Your task to perform on an android device: change the clock style Image 0: 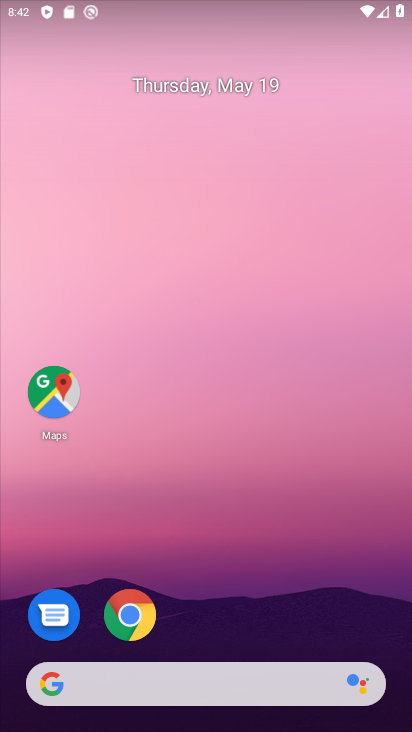
Step 0: drag from (297, 628) to (349, 3)
Your task to perform on an android device: change the clock style Image 1: 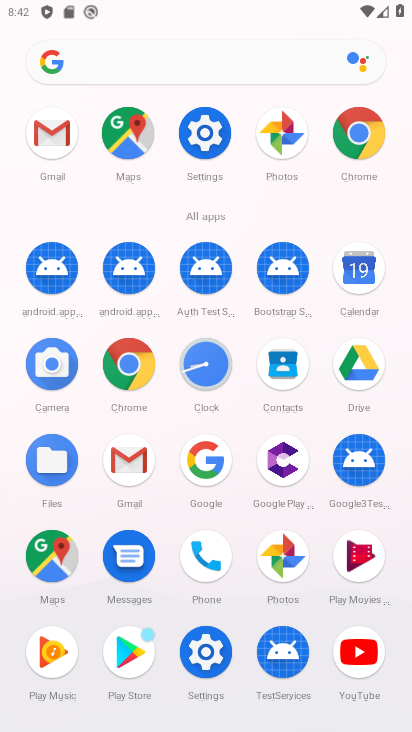
Step 1: click (210, 367)
Your task to perform on an android device: change the clock style Image 2: 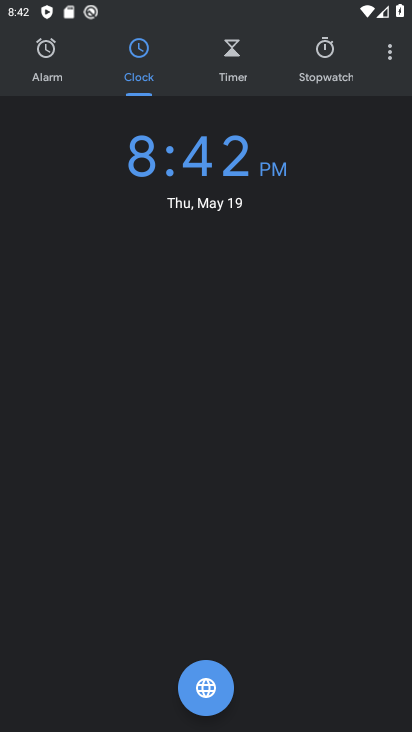
Step 2: click (381, 61)
Your task to perform on an android device: change the clock style Image 3: 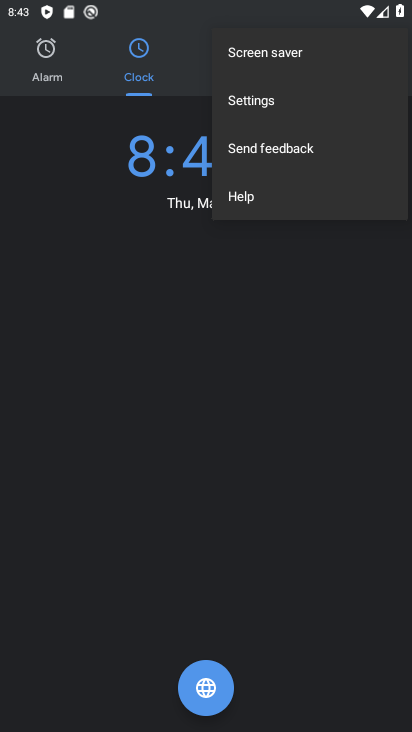
Step 3: click (257, 107)
Your task to perform on an android device: change the clock style Image 4: 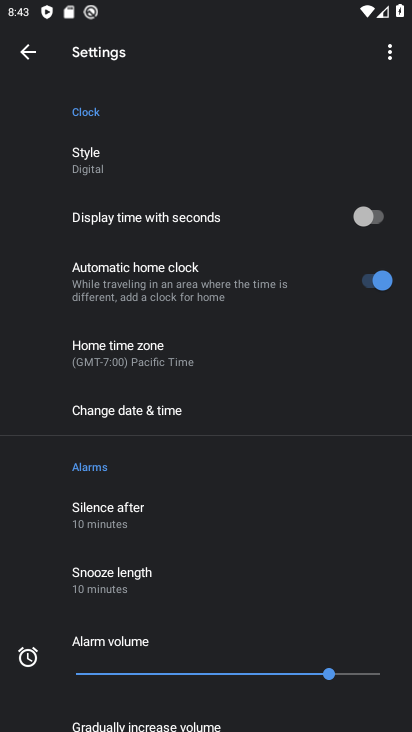
Step 4: click (104, 168)
Your task to perform on an android device: change the clock style Image 5: 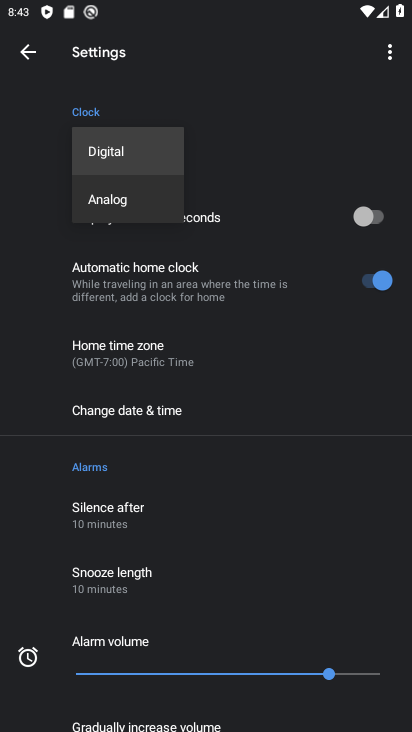
Step 5: click (119, 198)
Your task to perform on an android device: change the clock style Image 6: 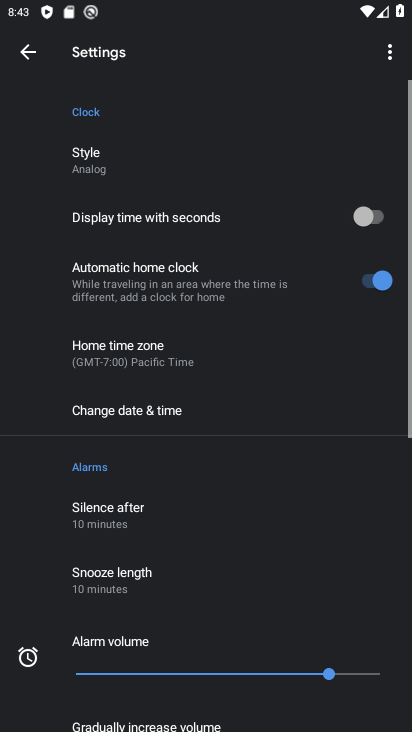
Step 6: task complete